Your task to perform on an android device: What's on my calendar tomorrow? Image 0: 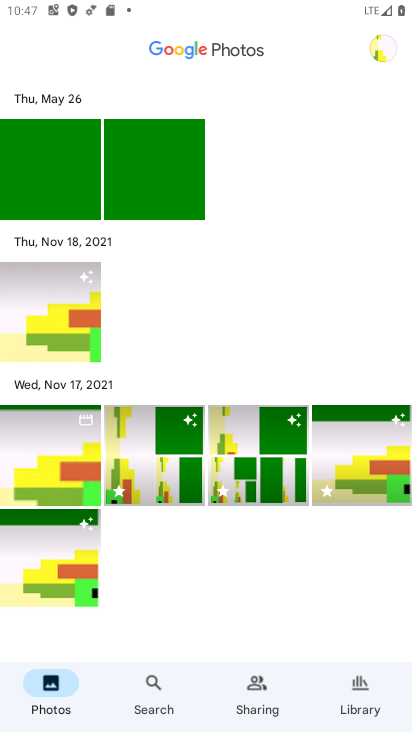
Step 0: press home button
Your task to perform on an android device: What's on my calendar tomorrow? Image 1: 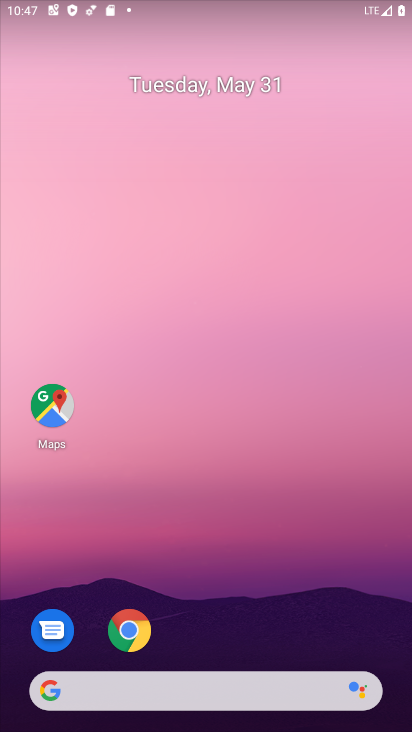
Step 1: drag from (309, 504) to (283, 122)
Your task to perform on an android device: What's on my calendar tomorrow? Image 2: 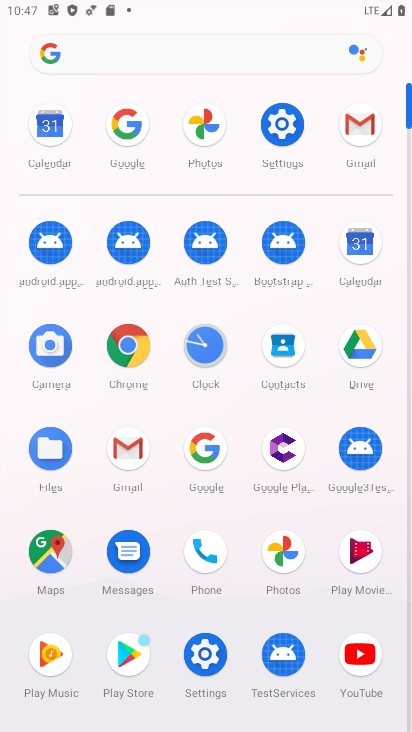
Step 2: click (357, 246)
Your task to perform on an android device: What's on my calendar tomorrow? Image 3: 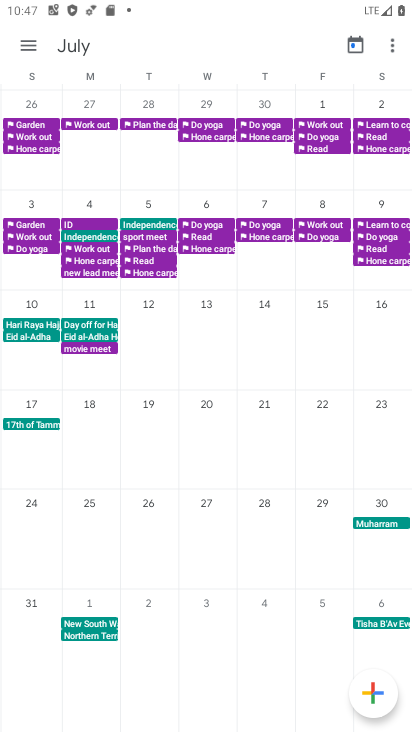
Step 3: drag from (45, 186) to (407, 206)
Your task to perform on an android device: What's on my calendar tomorrow? Image 4: 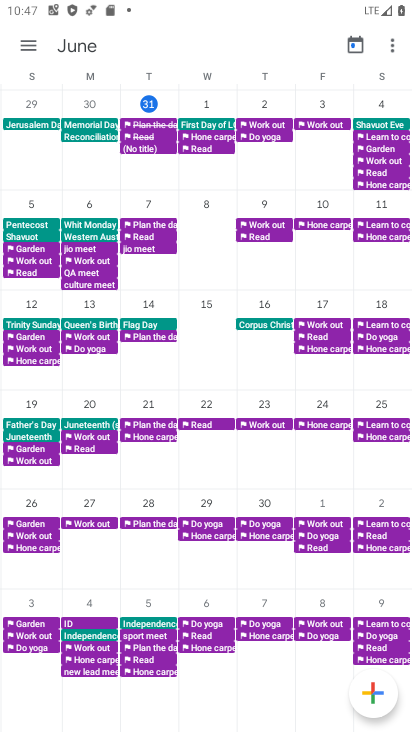
Step 4: click (28, 45)
Your task to perform on an android device: What's on my calendar tomorrow? Image 5: 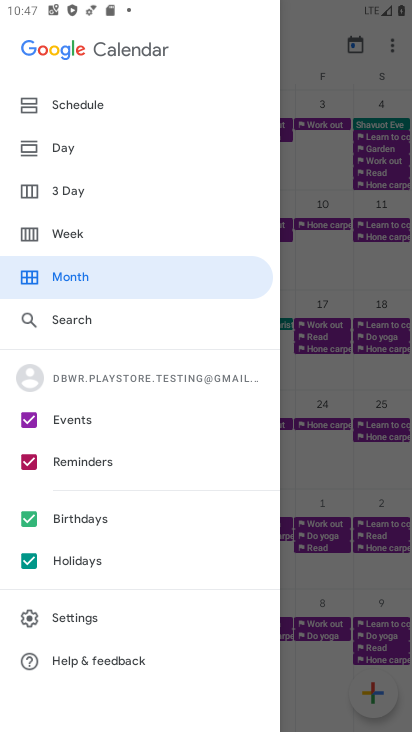
Step 5: click (75, 100)
Your task to perform on an android device: What's on my calendar tomorrow? Image 6: 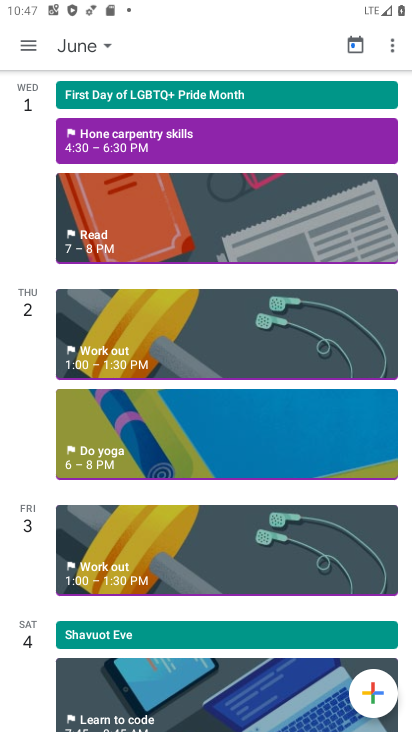
Step 6: task complete